Your task to perform on an android device: Go to notification settings Image 0: 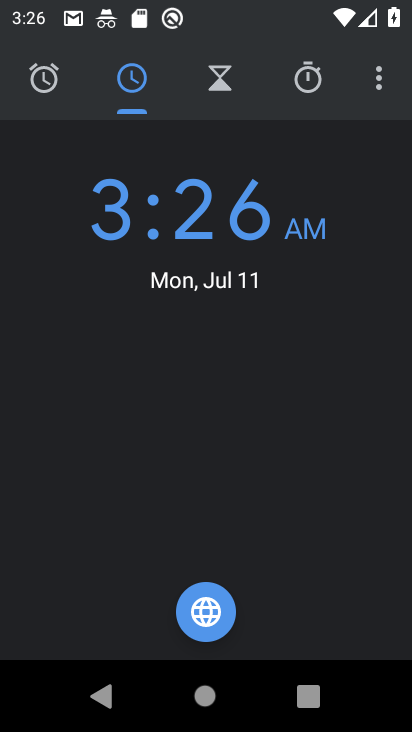
Step 0: press home button
Your task to perform on an android device: Go to notification settings Image 1: 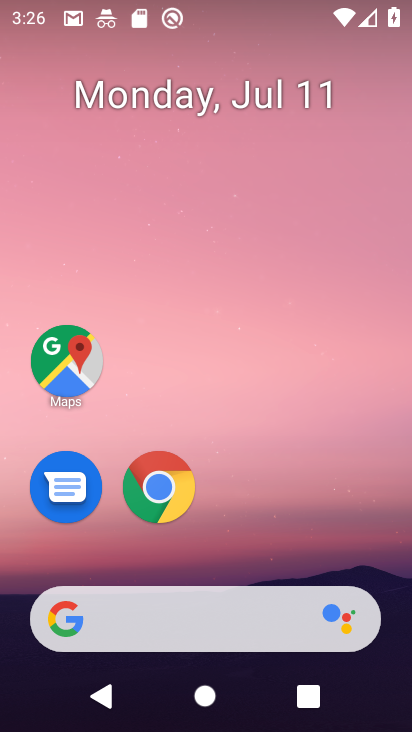
Step 1: drag from (203, 618) to (345, 34)
Your task to perform on an android device: Go to notification settings Image 2: 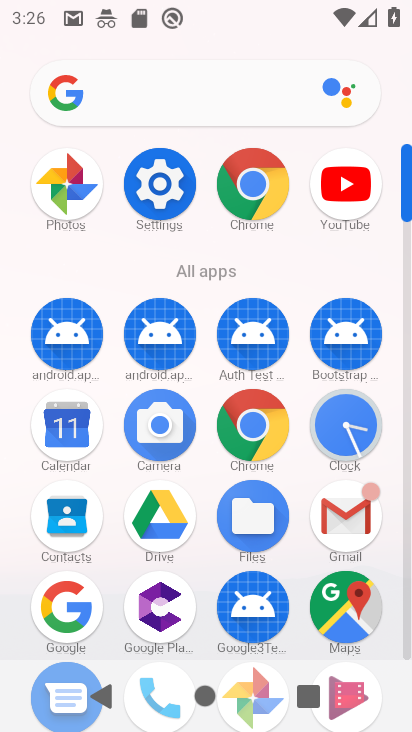
Step 2: click (160, 176)
Your task to perform on an android device: Go to notification settings Image 3: 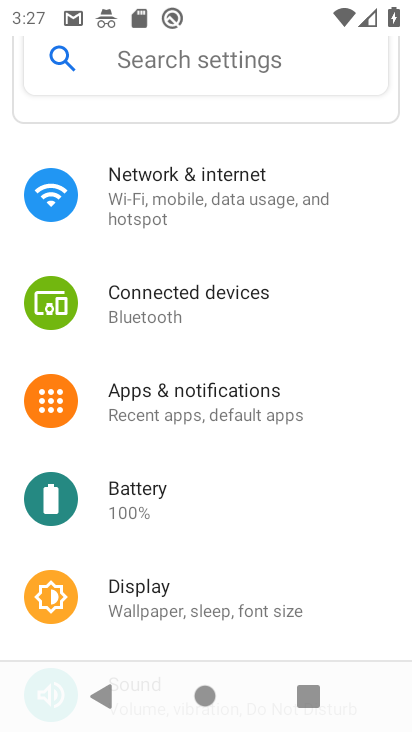
Step 3: click (206, 398)
Your task to perform on an android device: Go to notification settings Image 4: 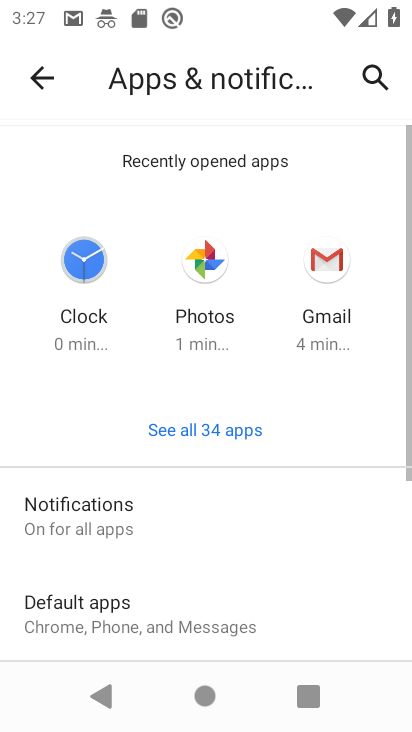
Step 4: click (106, 523)
Your task to perform on an android device: Go to notification settings Image 5: 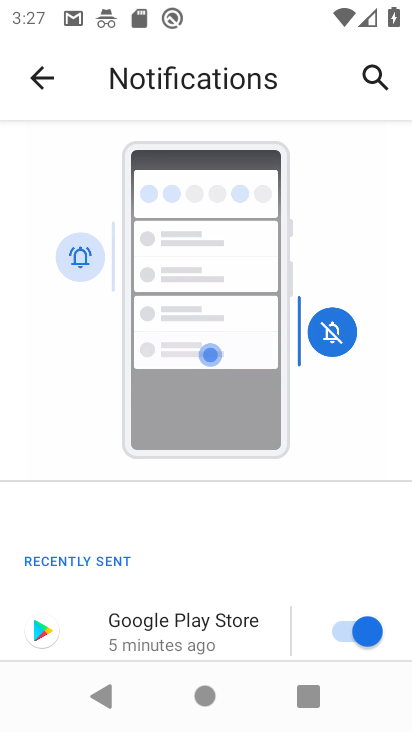
Step 5: task complete